Your task to perform on an android device: turn on the 12-hour format for clock Image 0: 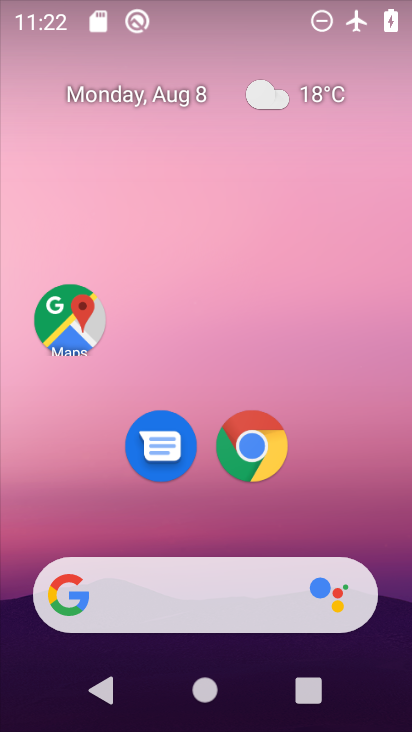
Step 0: drag from (401, 647) to (347, 146)
Your task to perform on an android device: turn on the 12-hour format for clock Image 1: 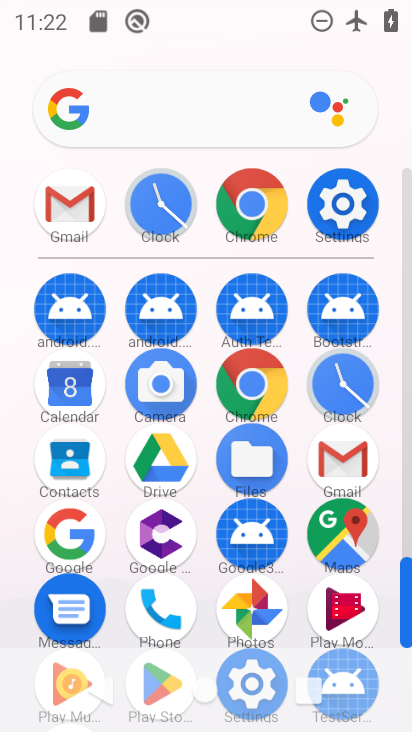
Step 1: click (339, 388)
Your task to perform on an android device: turn on the 12-hour format for clock Image 2: 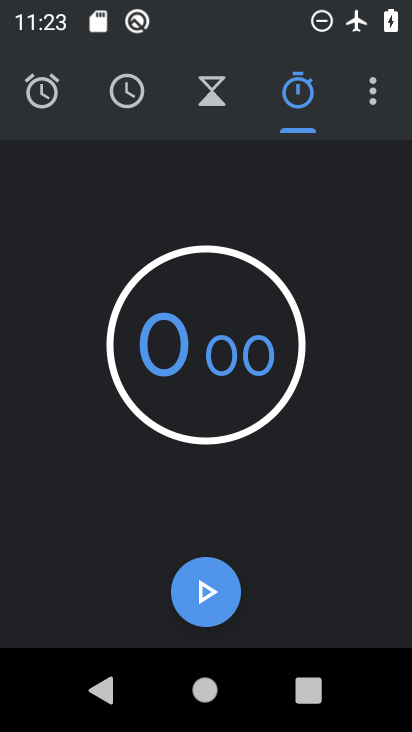
Step 2: click (366, 102)
Your task to perform on an android device: turn on the 12-hour format for clock Image 3: 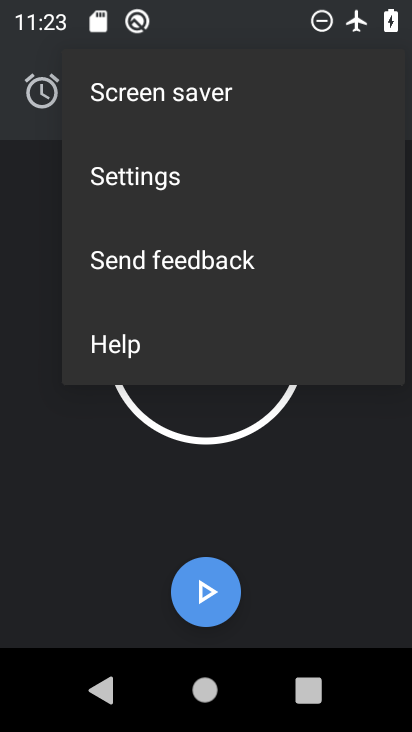
Step 3: click (138, 178)
Your task to perform on an android device: turn on the 12-hour format for clock Image 4: 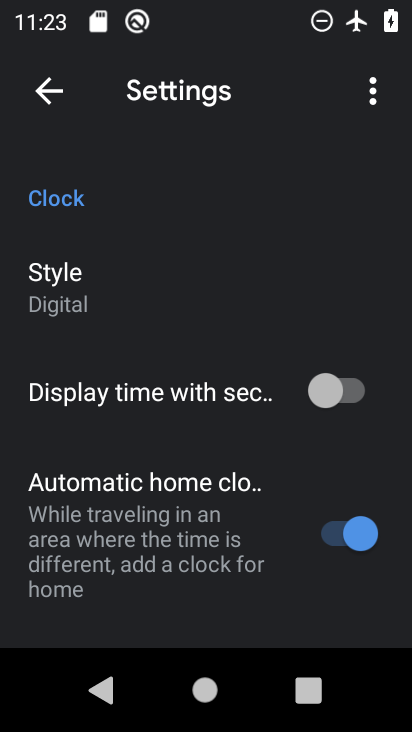
Step 4: drag from (259, 541) to (193, 213)
Your task to perform on an android device: turn on the 12-hour format for clock Image 5: 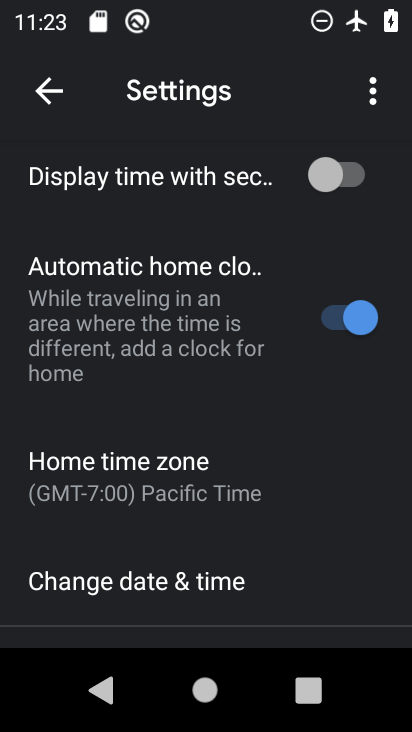
Step 5: drag from (244, 568) to (236, 237)
Your task to perform on an android device: turn on the 12-hour format for clock Image 6: 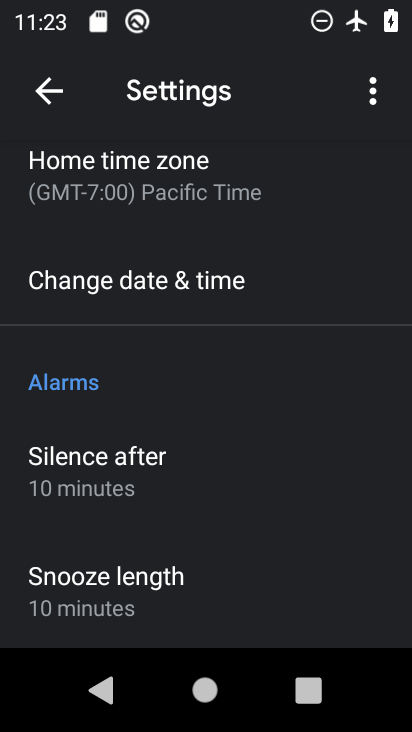
Step 6: click (162, 296)
Your task to perform on an android device: turn on the 12-hour format for clock Image 7: 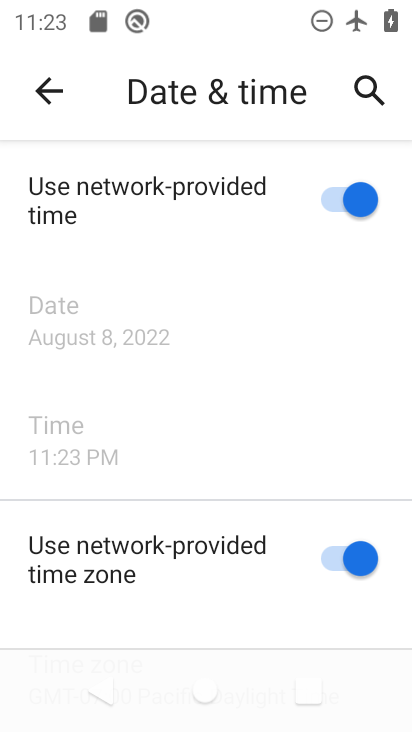
Step 7: task complete